Your task to perform on an android device: Open CNN.com Image 0: 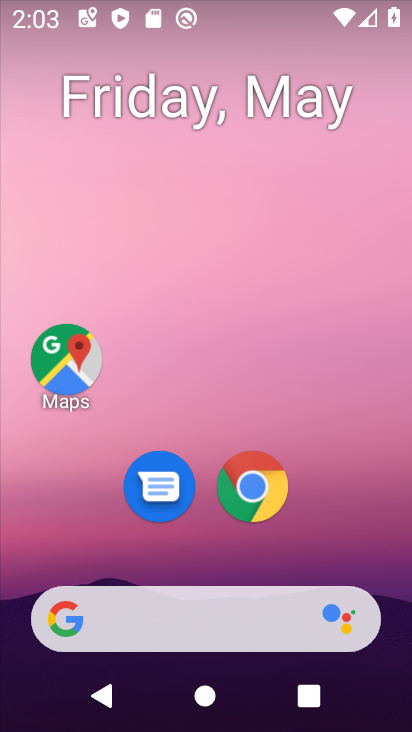
Step 0: click (261, 486)
Your task to perform on an android device: Open CNN.com Image 1: 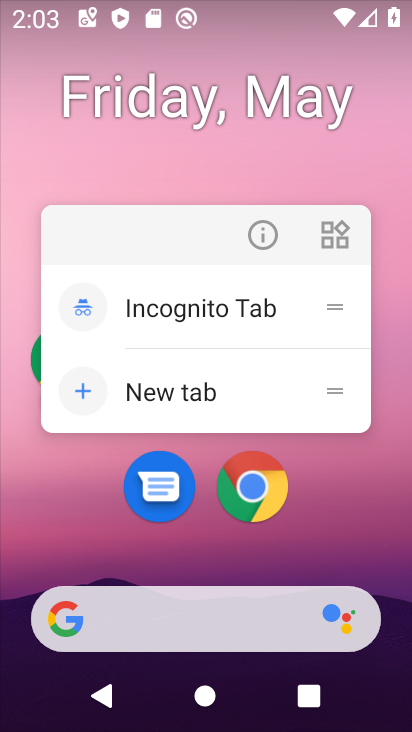
Step 1: click (259, 474)
Your task to perform on an android device: Open CNN.com Image 2: 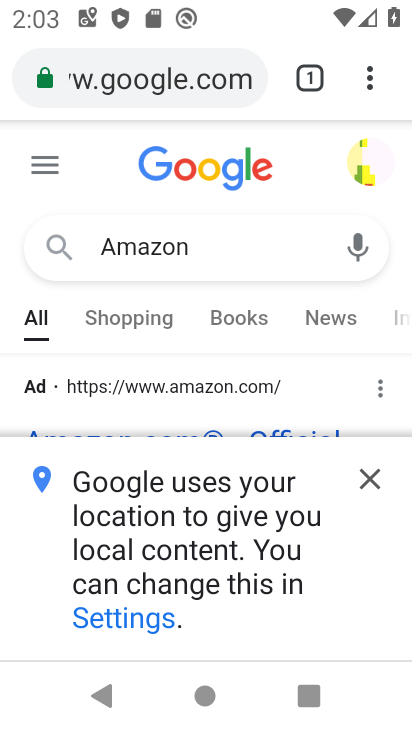
Step 2: click (248, 75)
Your task to perform on an android device: Open CNN.com Image 3: 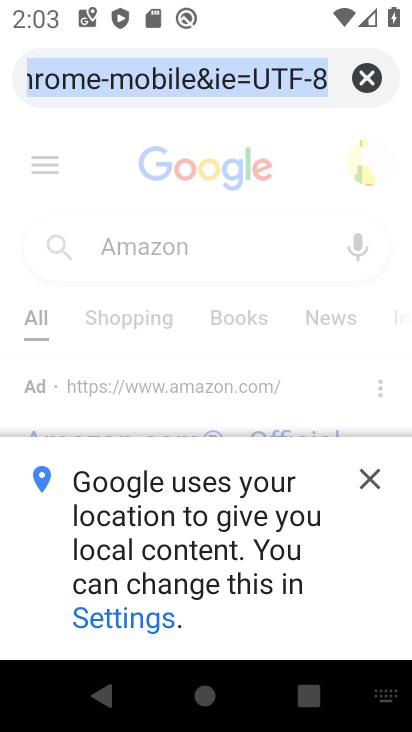
Step 3: click (369, 67)
Your task to perform on an android device: Open CNN.com Image 4: 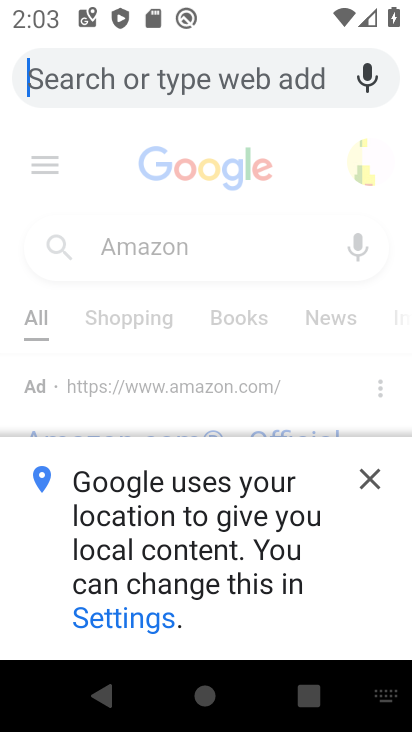
Step 4: type "CNN.com"
Your task to perform on an android device: Open CNN.com Image 5: 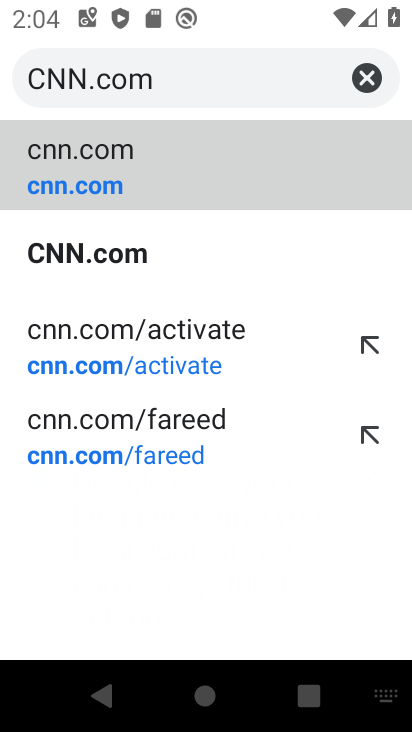
Step 5: click (76, 259)
Your task to perform on an android device: Open CNN.com Image 6: 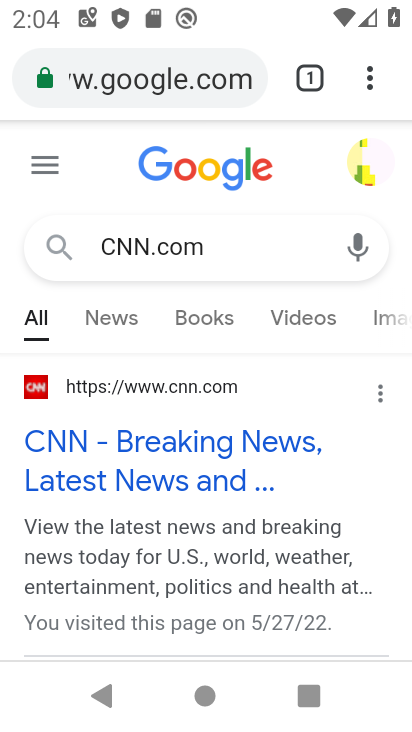
Step 6: task complete